Your task to perform on an android device: Go to battery settings Image 0: 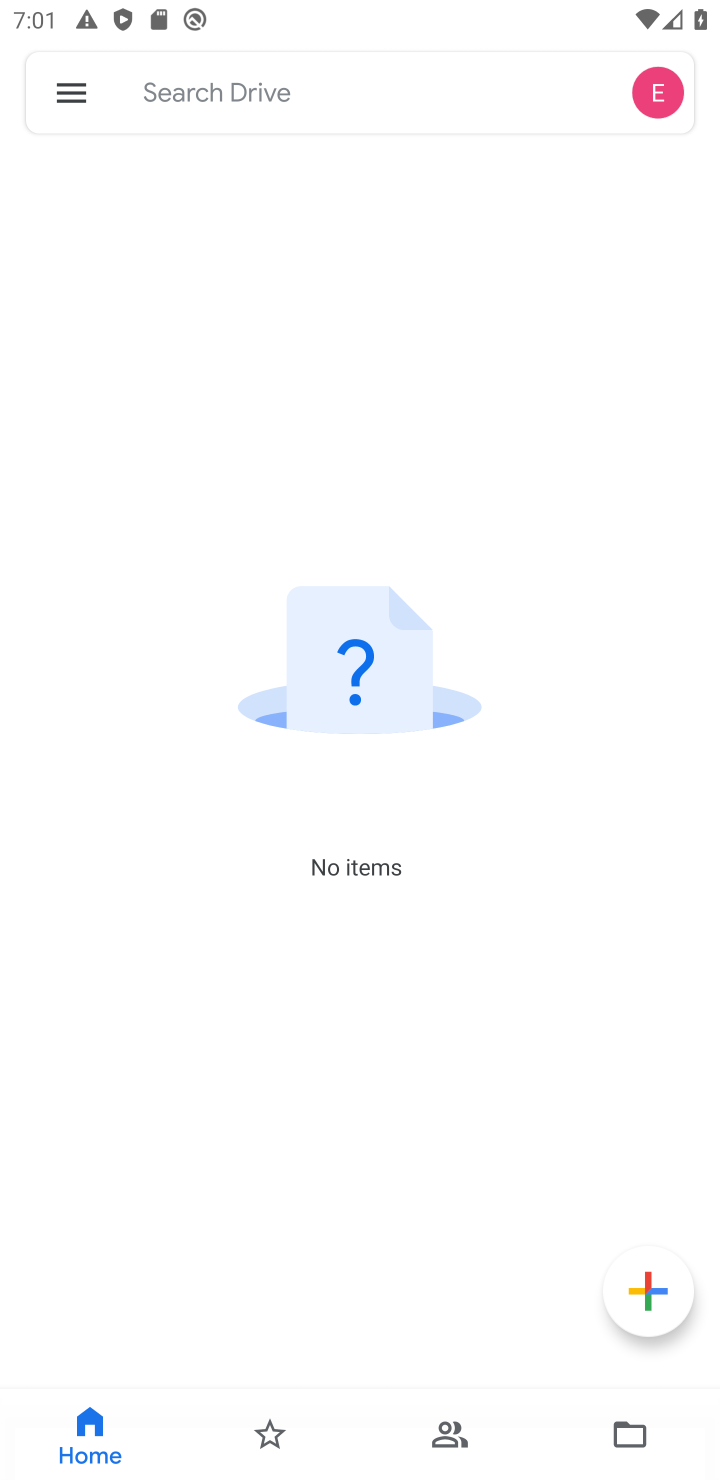
Step 0: press home button
Your task to perform on an android device: Go to battery settings Image 1: 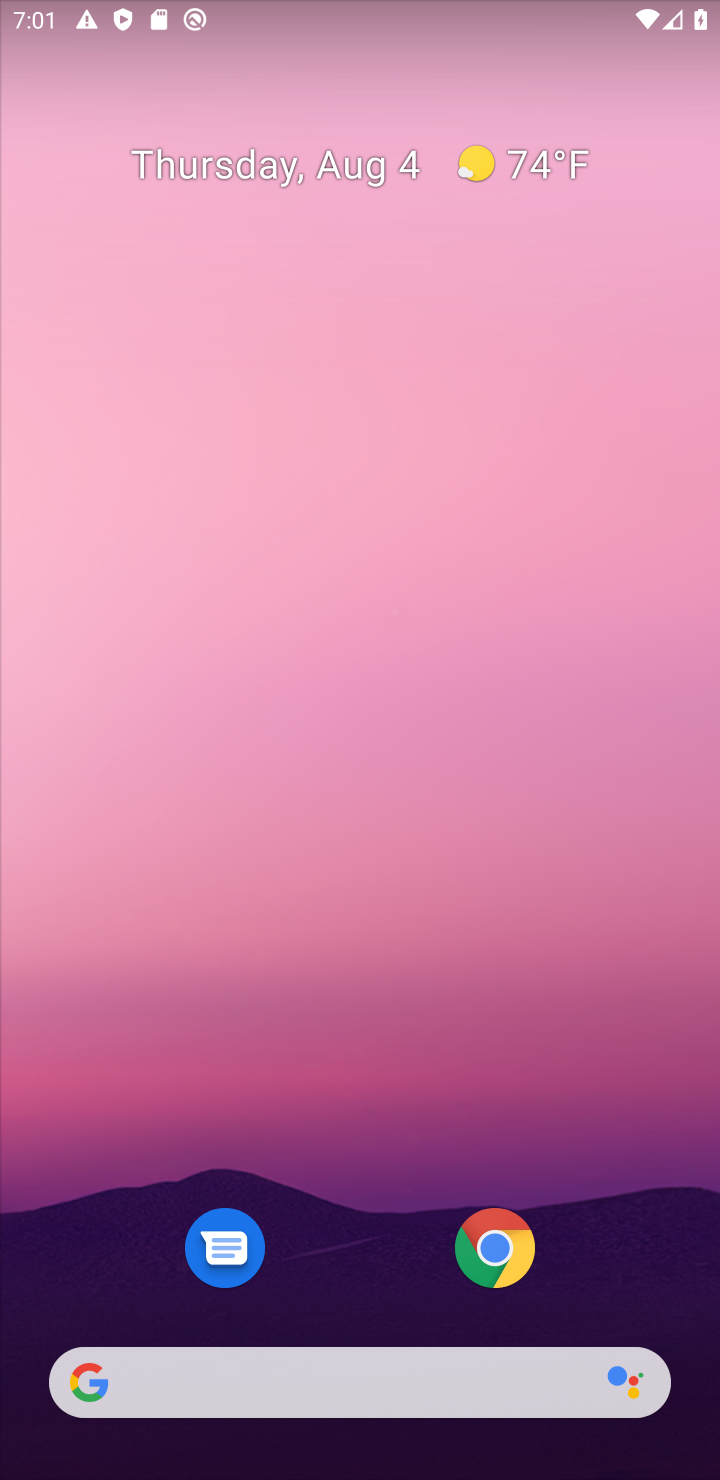
Step 1: drag from (362, 1297) to (200, 179)
Your task to perform on an android device: Go to battery settings Image 2: 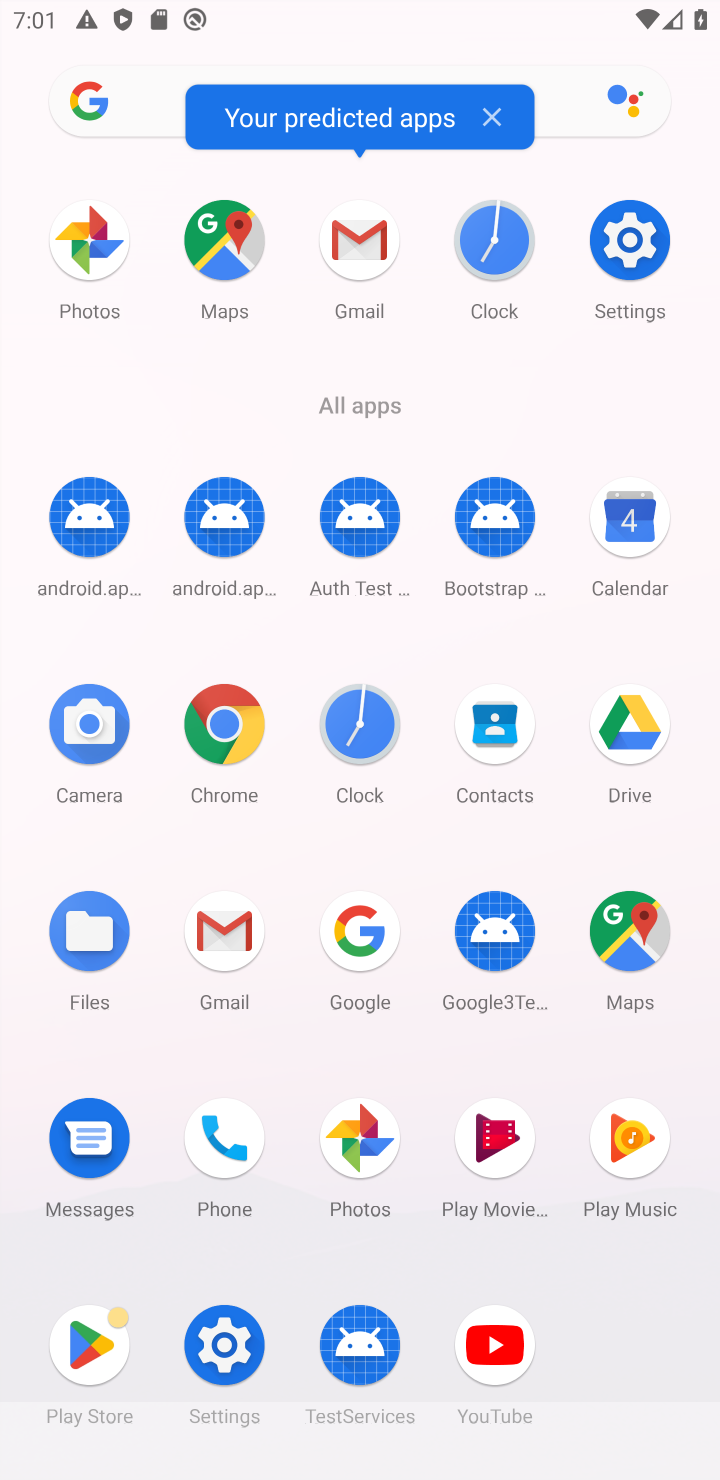
Step 2: click (232, 1323)
Your task to perform on an android device: Go to battery settings Image 3: 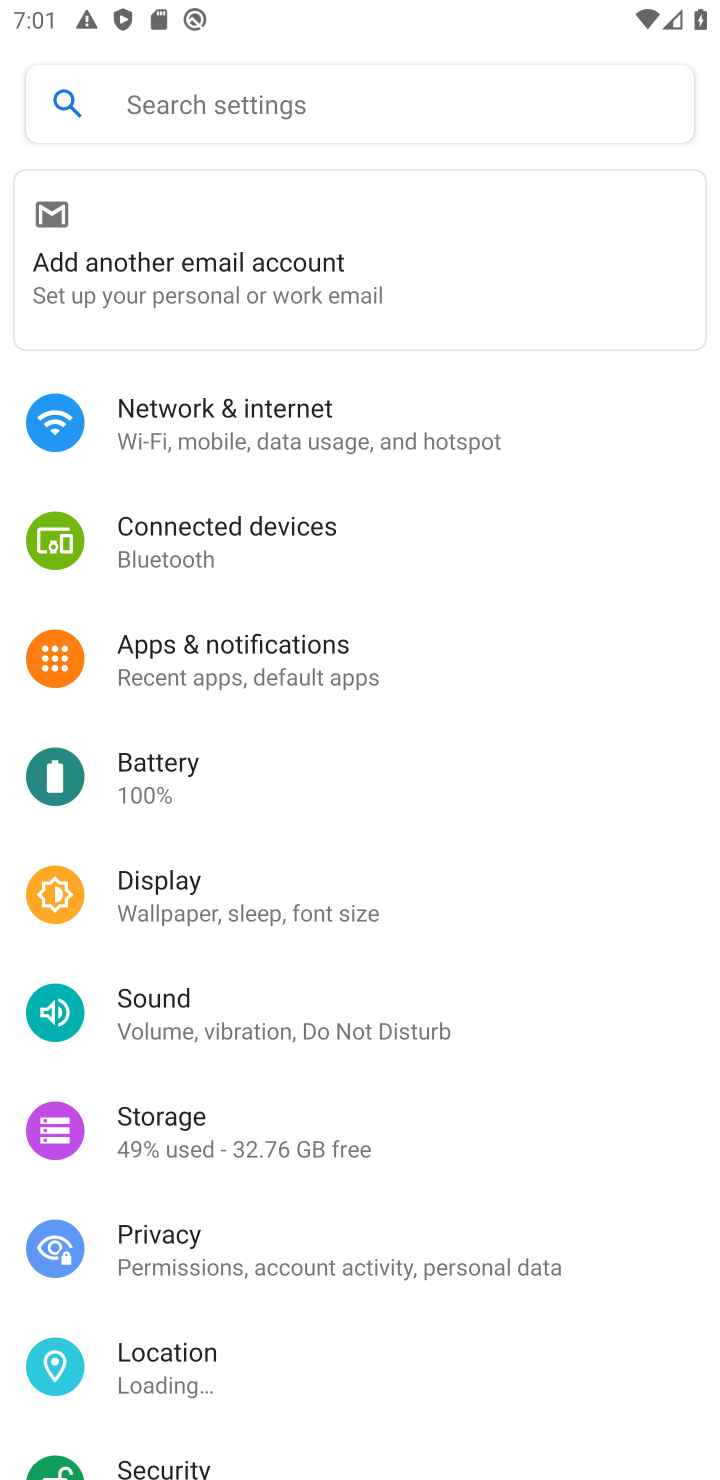
Step 3: click (214, 800)
Your task to perform on an android device: Go to battery settings Image 4: 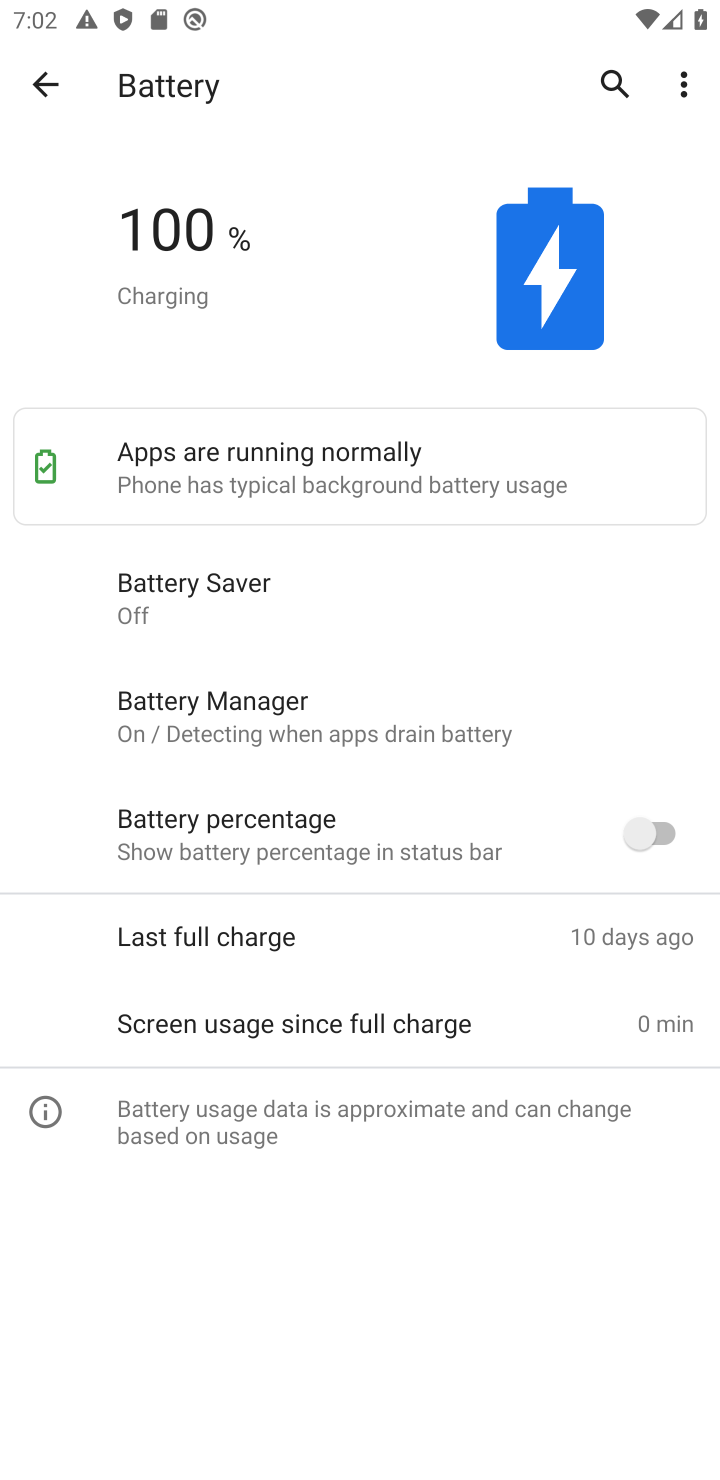
Step 4: task complete